Your task to perform on an android device: Open a new private tab in Chrome Image 0: 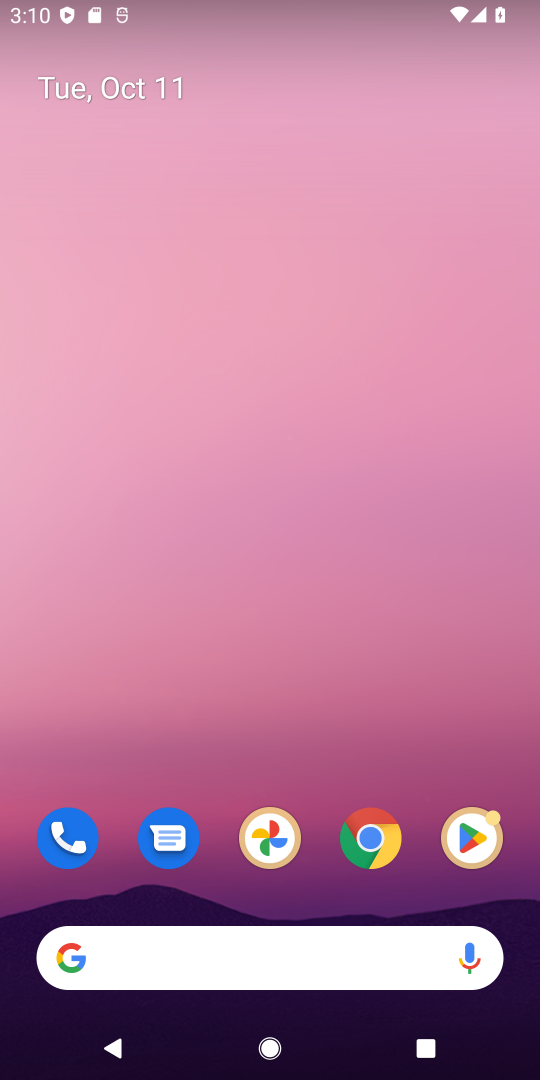
Step 0: click (367, 854)
Your task to perform on an android device: Open a new private tab in Chrome Image 1: 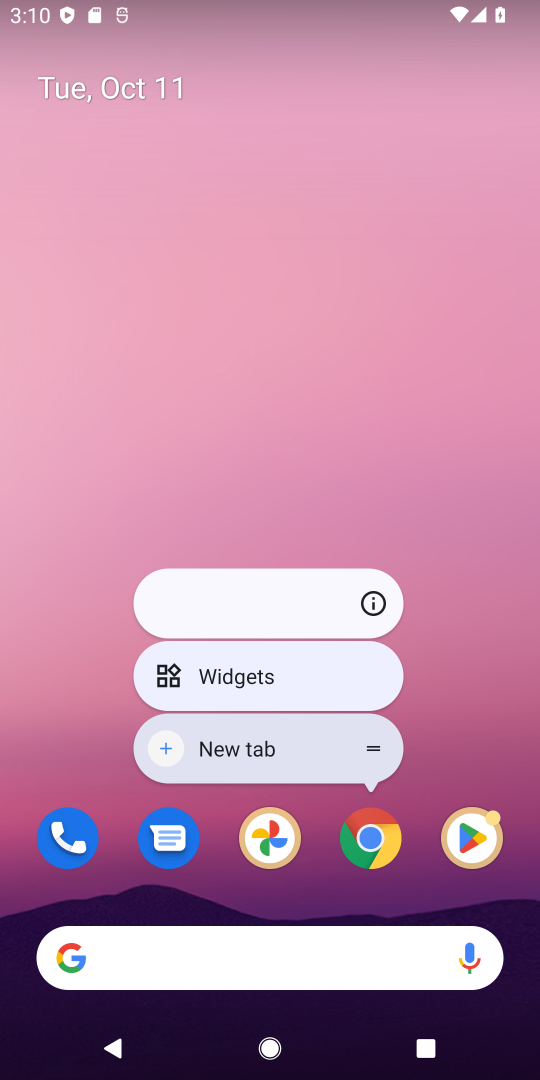
Step 1: click (362, 861)
Your task to perform on an android device: Open a new private tab in Chrome Image 2: 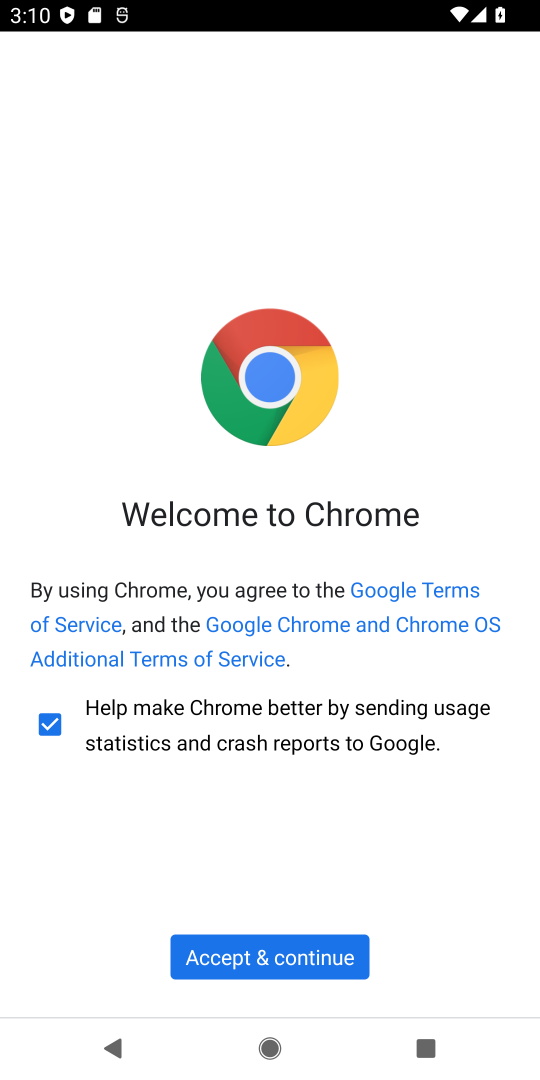
Step 2: click (222, 968)
Your task to perform on an android device: Open a new private tab in Chrome Image 3: 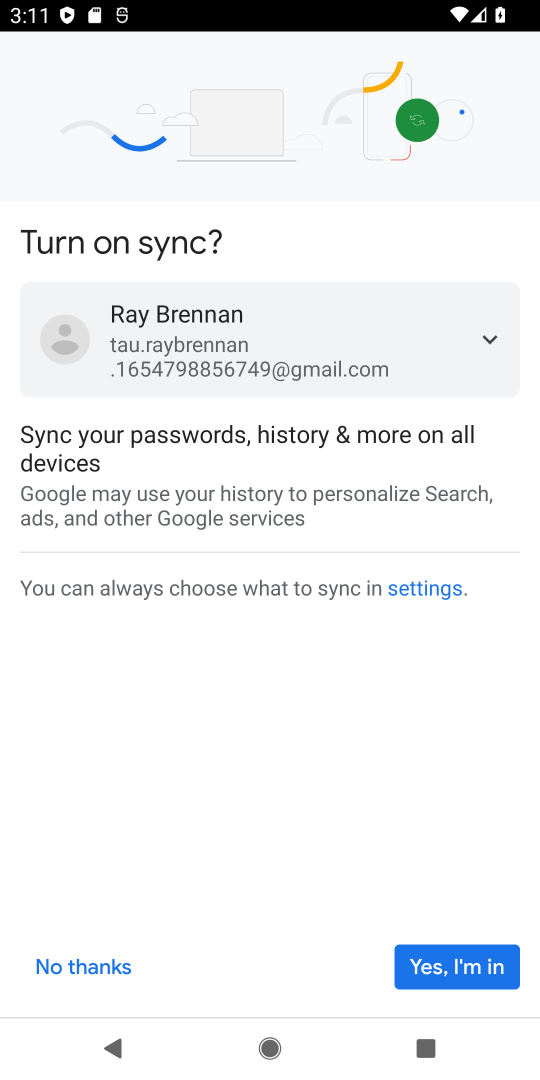
Step 3: click (440, 959)
Your task to perform on an android device: Open a new private tab in Chrome Image 4: 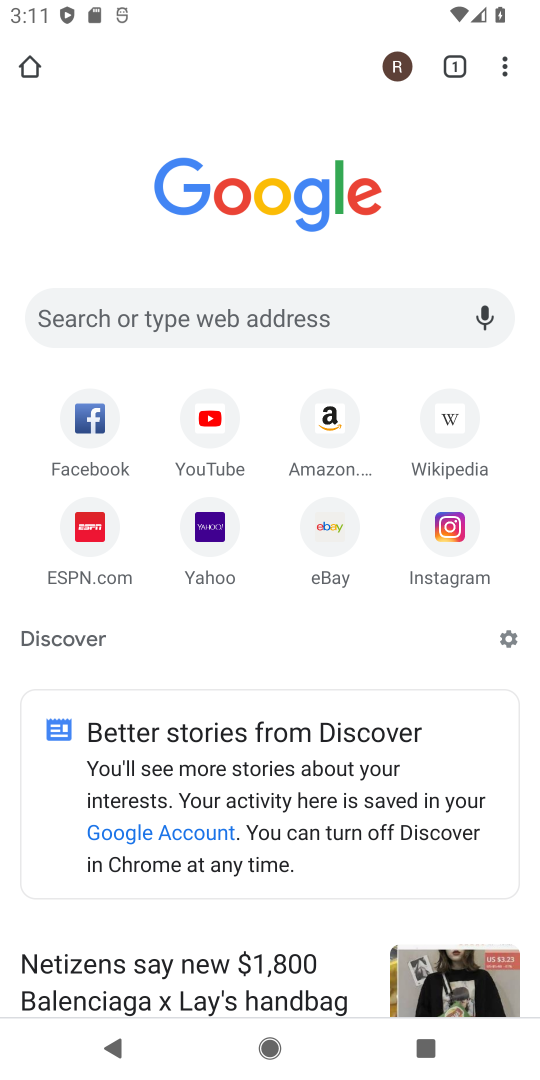
Step 4: click (507, 61)
Your task to perform on an android device: Open a new private tab in Chrome Image 5: 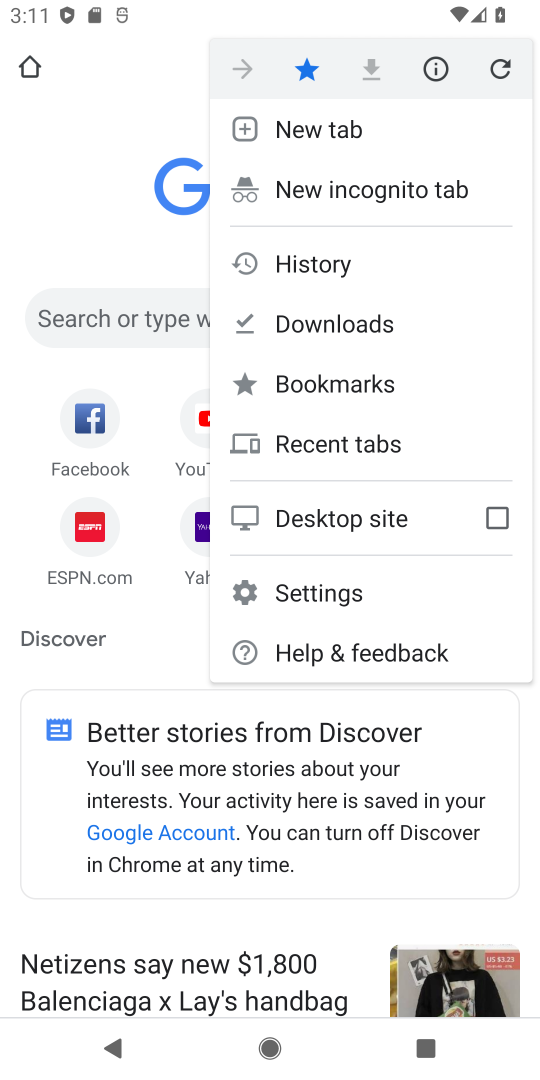
Step 5: click (262, 123)
Your task to perform on an android device: Open a new private tab in Chrome Image 6: 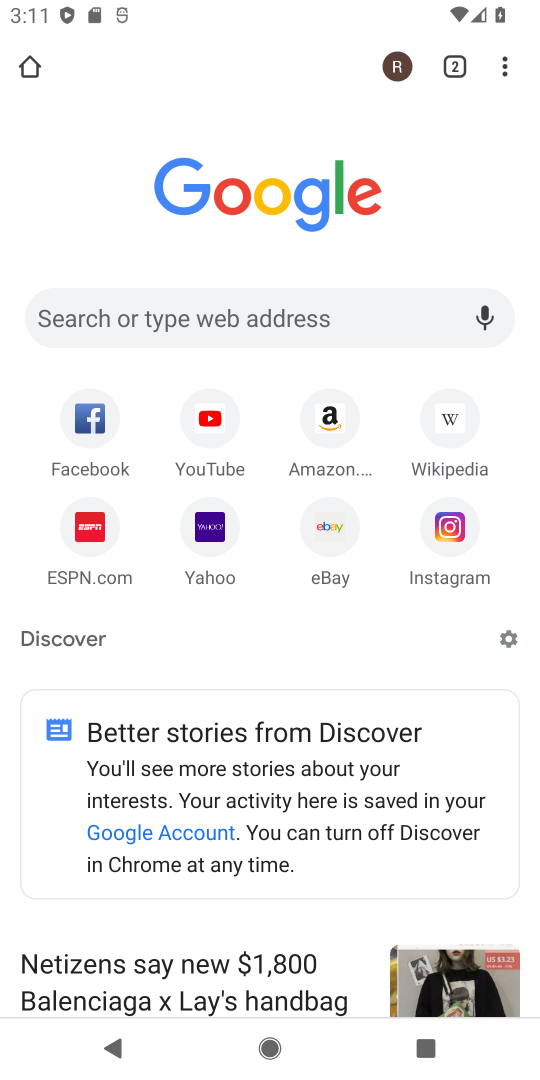
Step 6: task complete